Your task to perform on an android device: install app "Firefox Browser" Image 0: 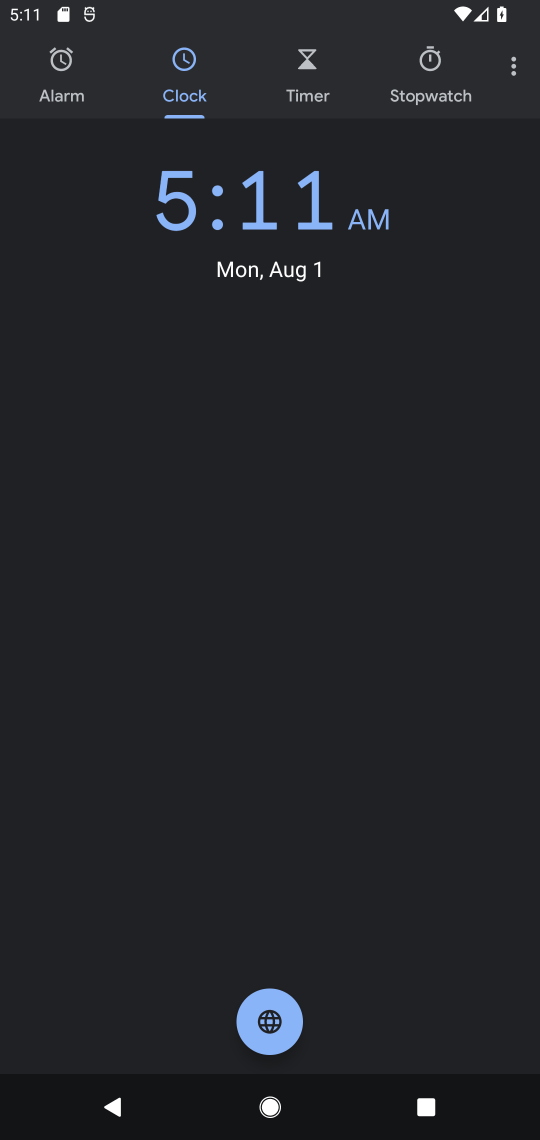
Step 0: press home button
Your task to perform on an android device: install app "Firefox Browser" Image 1: 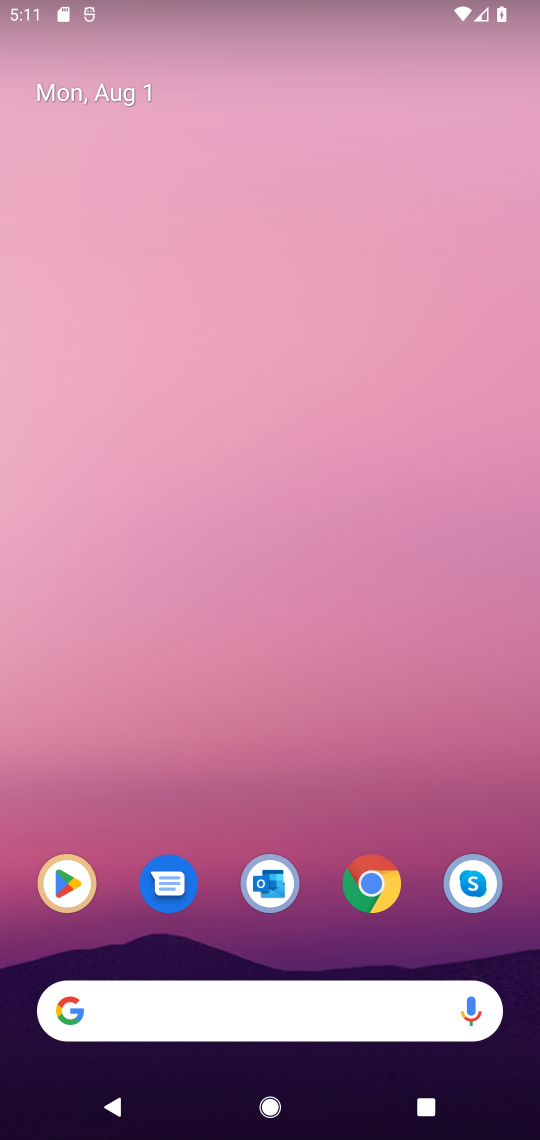
Step 1: click (273, 716)
Your task to perform on an android device: install app "Firefox Browser" Image 2: 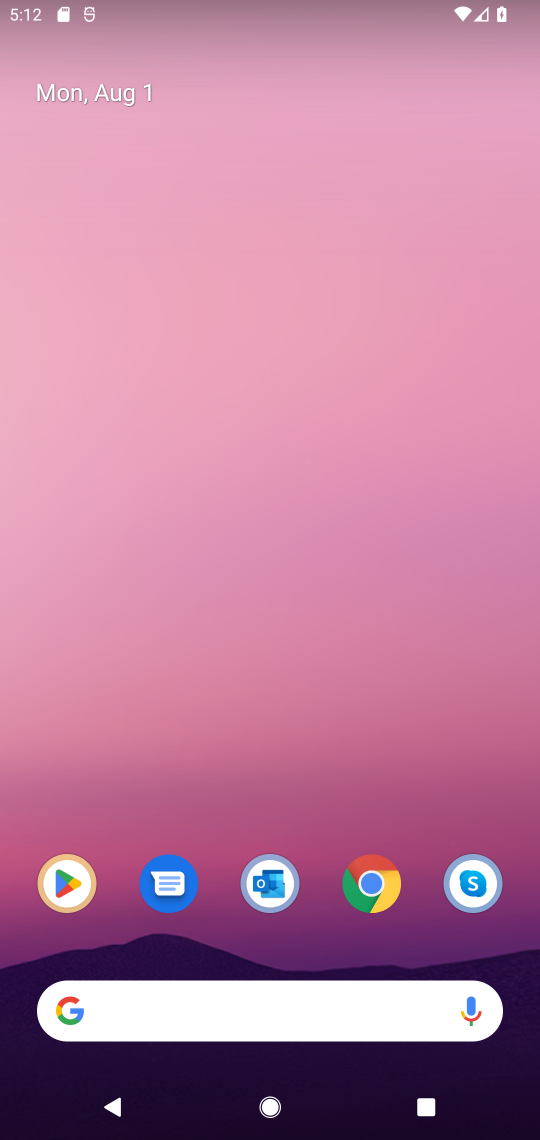
Step 2: drag from (331, 991) to (419, 325)
Your task to perform on an android device: install app "Firefox Browser" Image 3: 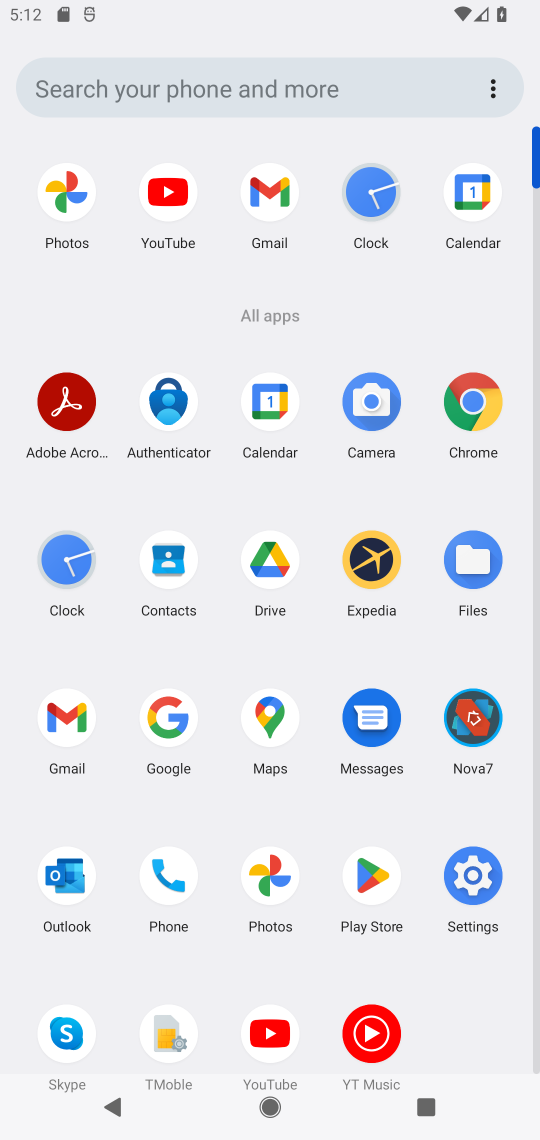
Step 3: click (358, 877)
Your task to perform on an android device: install app "Firefox Browser" Image 4: 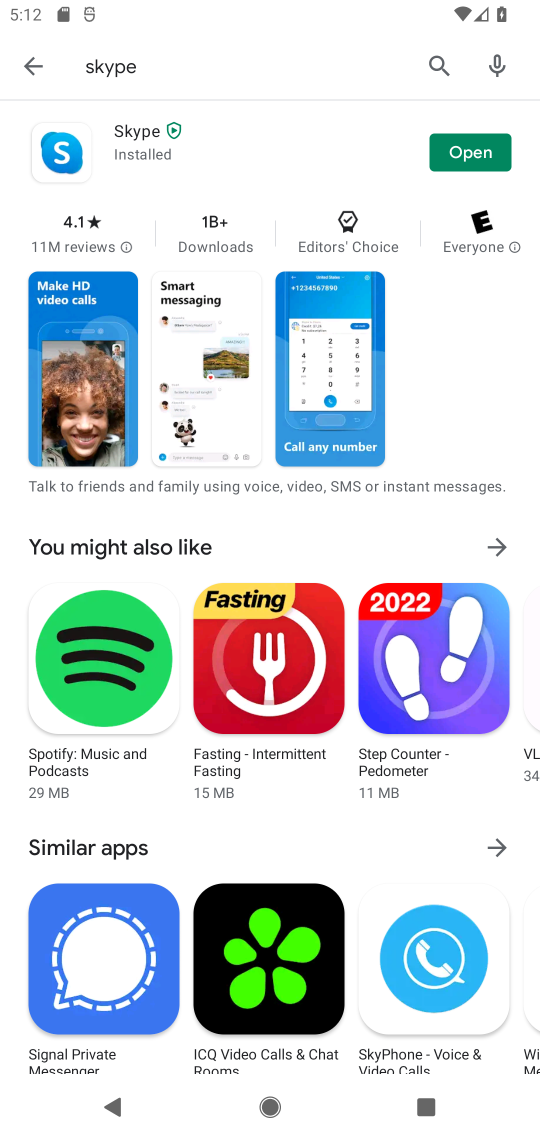
Step 4: click (435, 70)
Your task to perform on an android device: install app "Firefox Browser" Image 5: 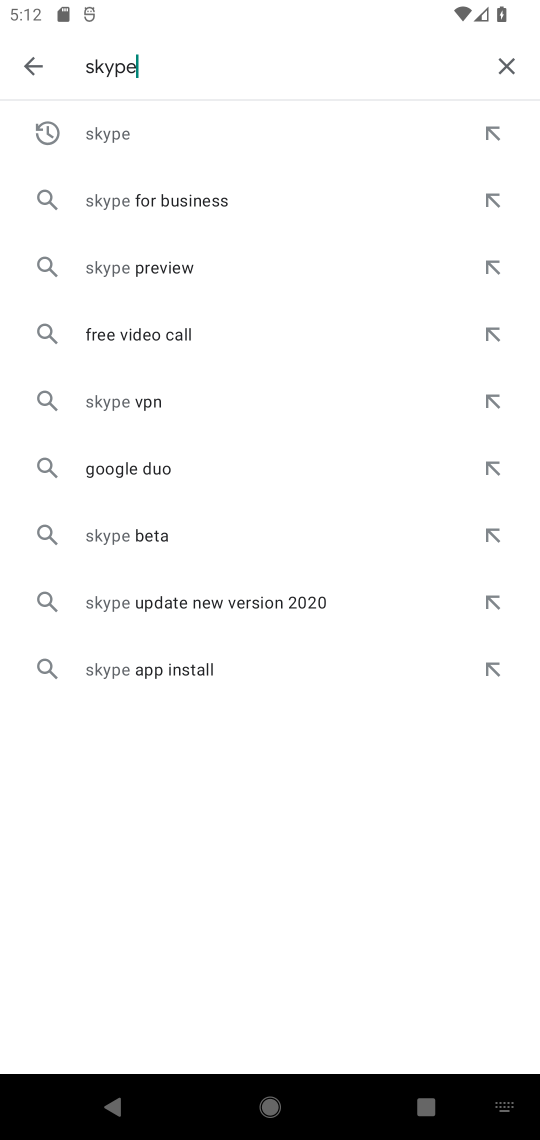
Step 5: click (511, 59)
Your task to perform on an android device: install app "Firefox Browser" Image 6: 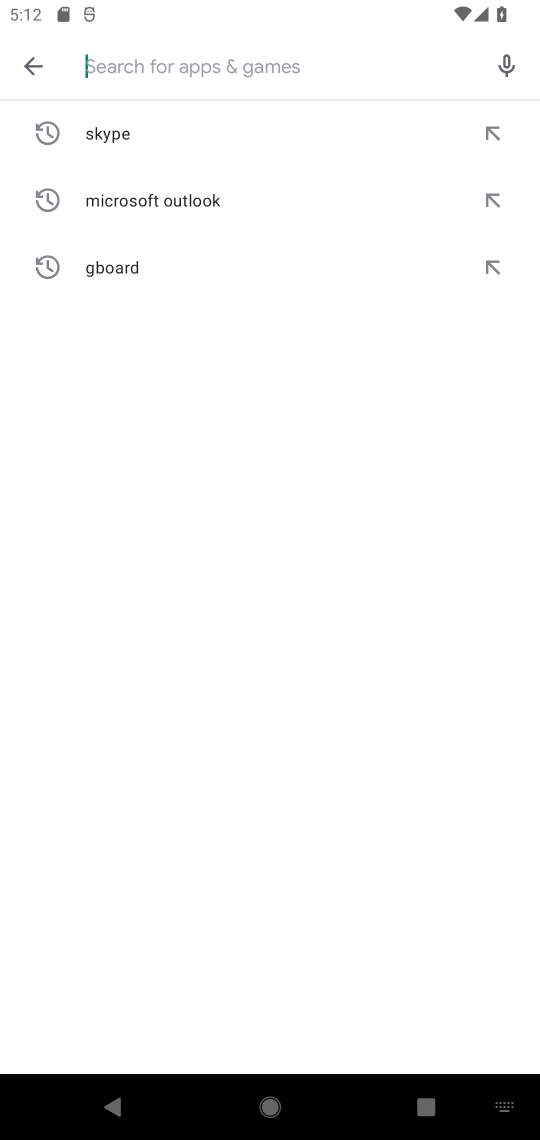
Step 6: type "Firefox Browser"
Your task to perform on an android device: install app "Firefox Browser" Image 7: 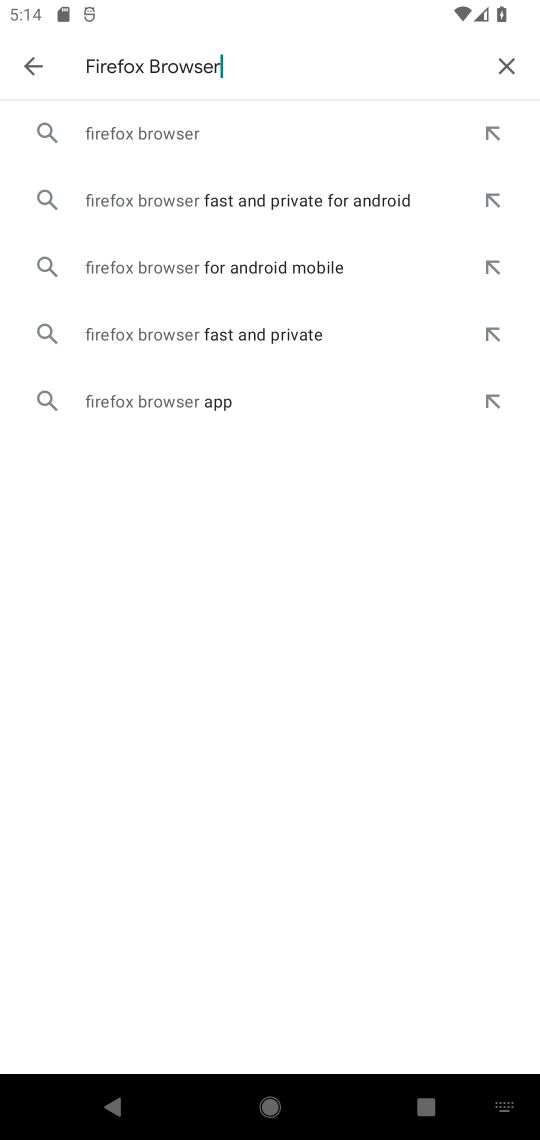
Step 7: click (227, 135)
Your task to perform on an android device: install app "Firefox Browser" Image 8: 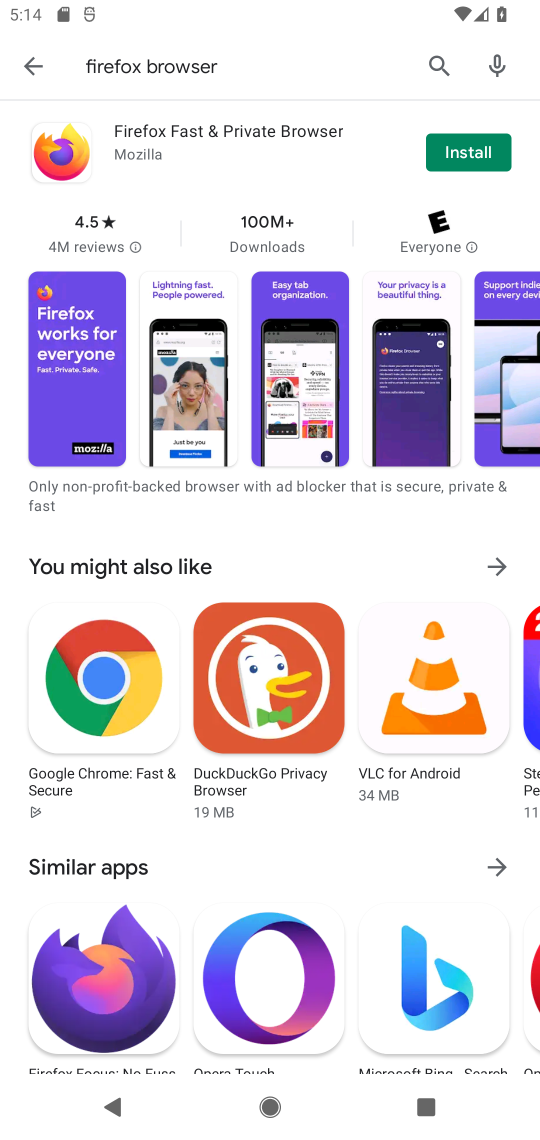
Step 8: click (499, 146)
Your task to perform on an android device: install app "Firefox Browser" Image 9: 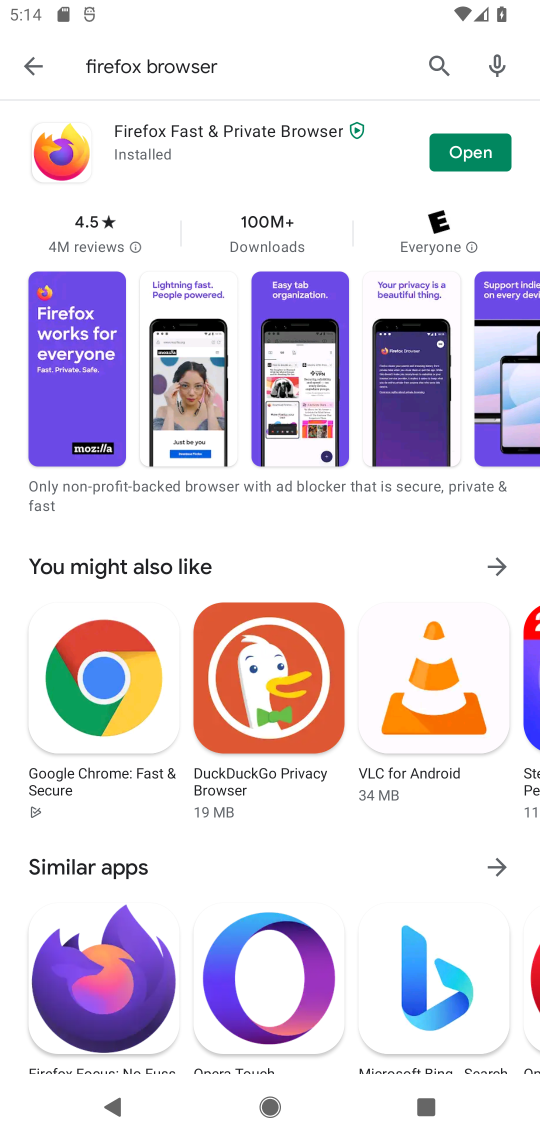
Step 9: click (461, 165)
Your task to perform on an android device: install app "Firefox Browser" Image 10: 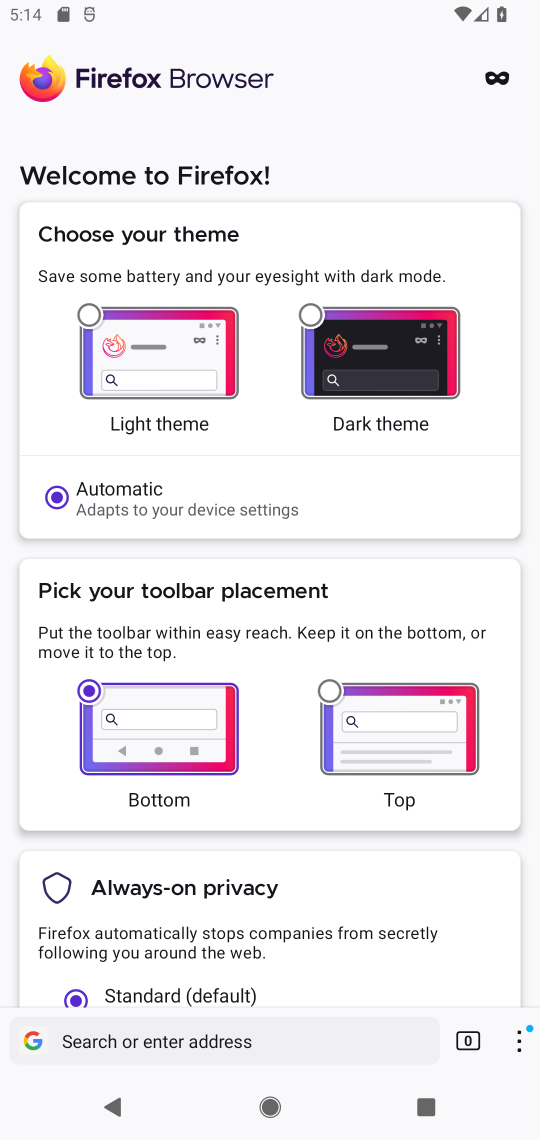
Step 10: task complete